Your task to perform on an android device: Open Chrome and go to settings Image 0: 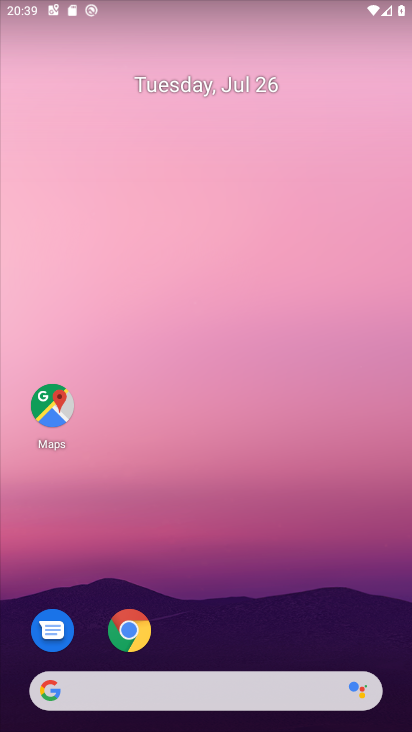
Step 0: click (132, 631)
Your task to perform on an android device: Open Chrome and go to settings Image 1: 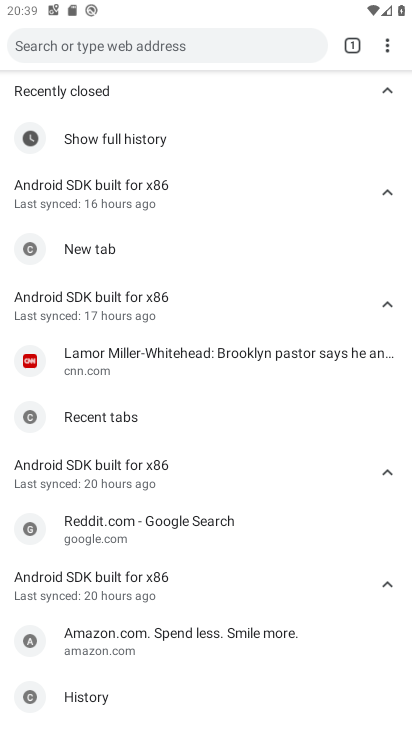
Step 1: click (385, 42)
Your task to perform on an android device: Open Chrome and go to settings Image 2: 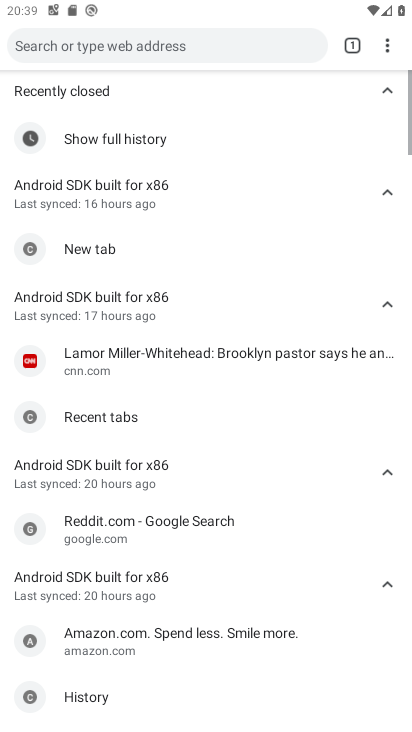
Step 2: click (386, 41)
Your task to perform on an android device: Open Chrome and go to settings Image 3: 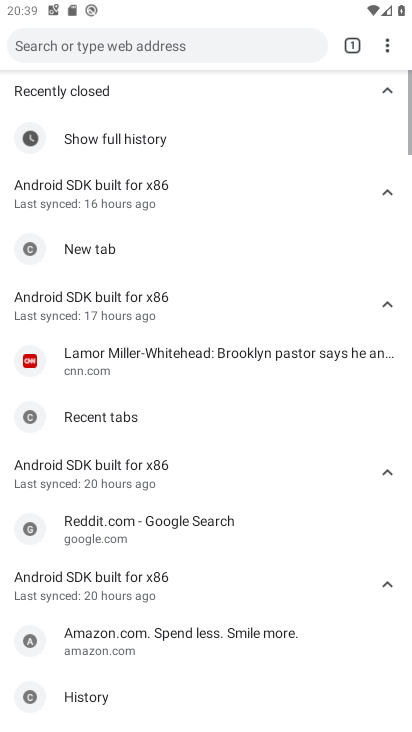
Step 3: click (386, 41)
Your task to perform on an android device: Open Chrome and go to settings Image 4: 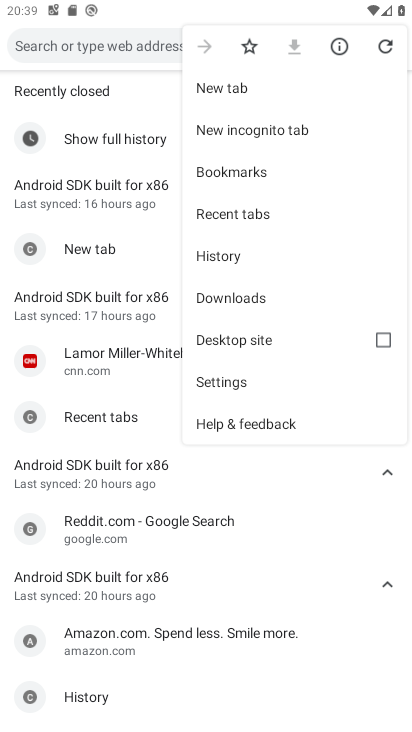
Step 4: click (213, 379)
Your task to perform on an android device: Open Chrome and go to settings Image 5: 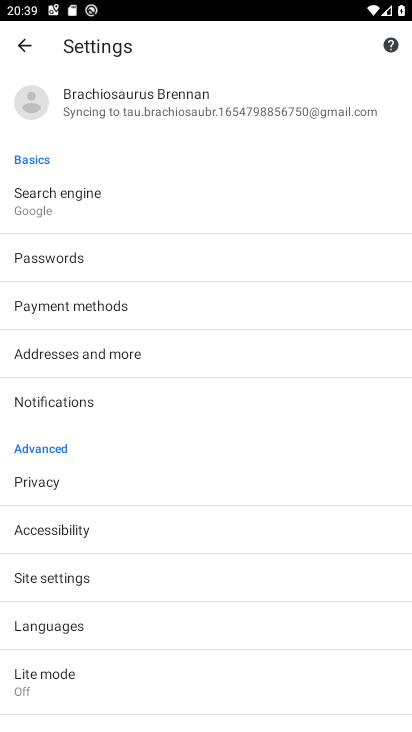
Step 5: task complete